Your task to perform on an android device: What is the recent news? Image 0: 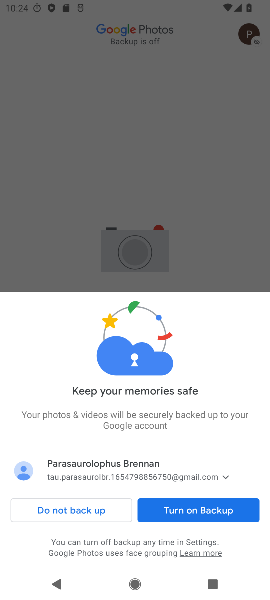
Step 0: press home button
Your task to perform on an android device: What is the recent news? Image 1: 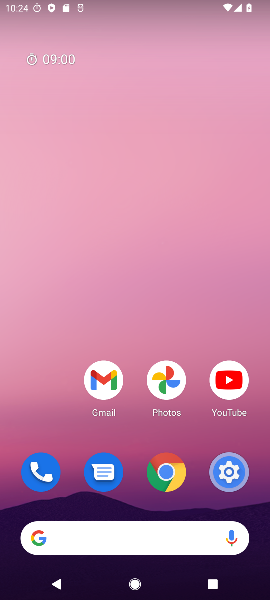
Step 1: drag from (165, 342) to (156, 49)
Your task to perform on an android device: What is the recent news? Image 2: 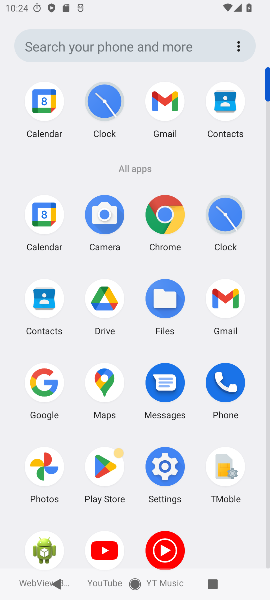
Step 2: click (168, 229)
Your task to perform on an android device: What is the recent news? Image 3: 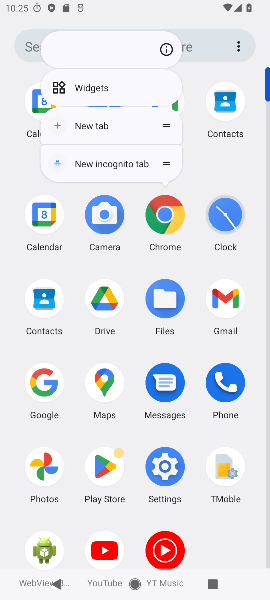
Step 3: click (167, 219)
Your task to perform on an android device: What is the recent news? Image 4: 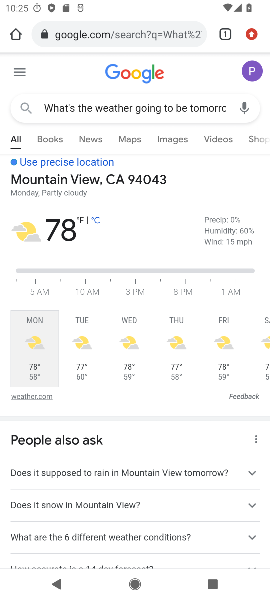
Step 4: click (107, 37)
Your task to perform on an android device: What is the recent news? Image 5: 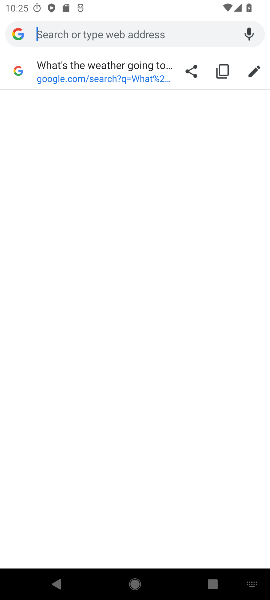
Step 5: type "What is the recent news?"
Your task to perform on an android device: What is the recent news? Image 6: 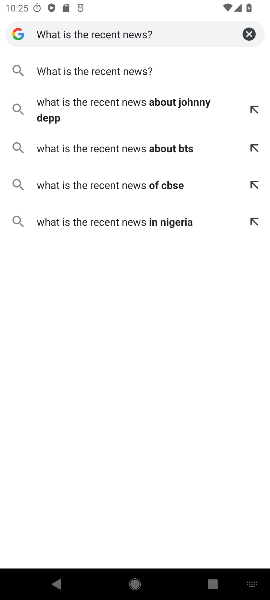
Step 6: click (143, 78)
Your task to perform on an android device: What is the recent news? Image 7: 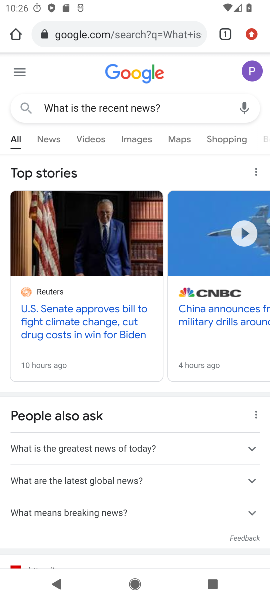
Step 7: task complete